Your task to perform on an android device: Open the calendar and show me this week's events? Image 0: 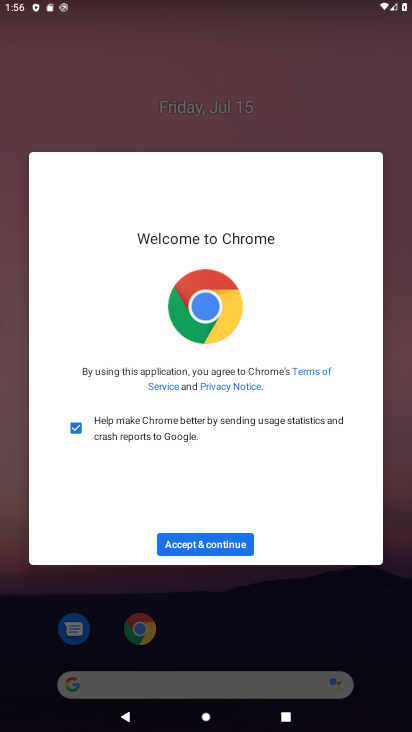
Step 0: click (201, 549)
Your task to perform on an android device: Open the calendar and show me this week's events? Image 1: 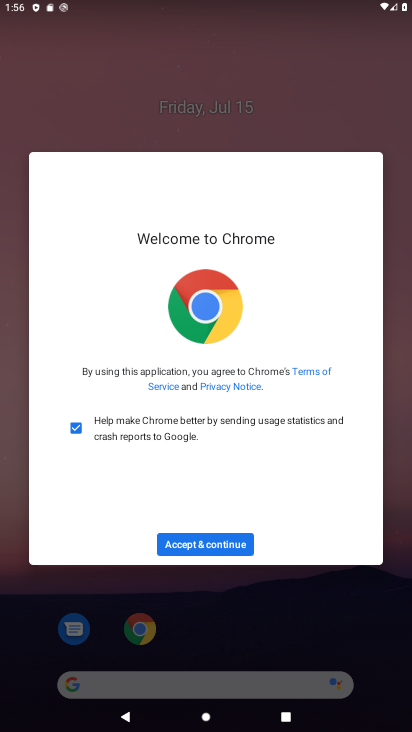
Step 1: click (202, 549)
Your task to perform on an android device: Open the calendar and show me this week's events? Image 2: 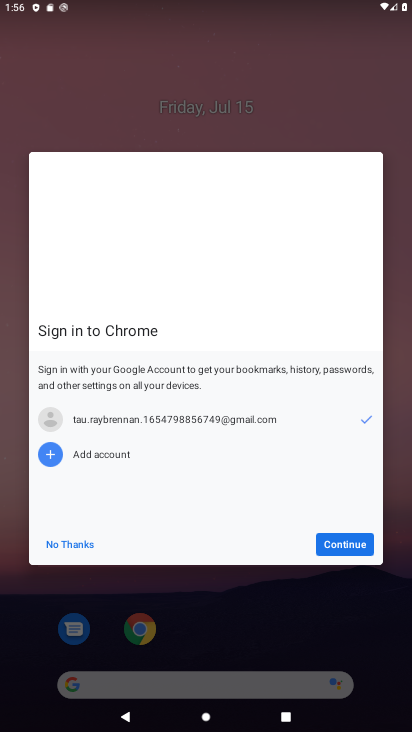
Step 2: click (333, 554)
Your task to perform on an android device: Open the calendar and show me this week's events? Image 3: 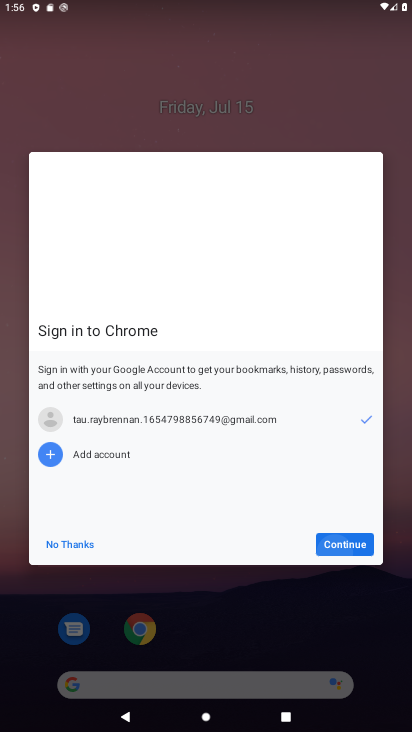
Step 3: click (333, 554)
Your task to perform on an android device: Open the calendar and show me this week's events? Image 4: 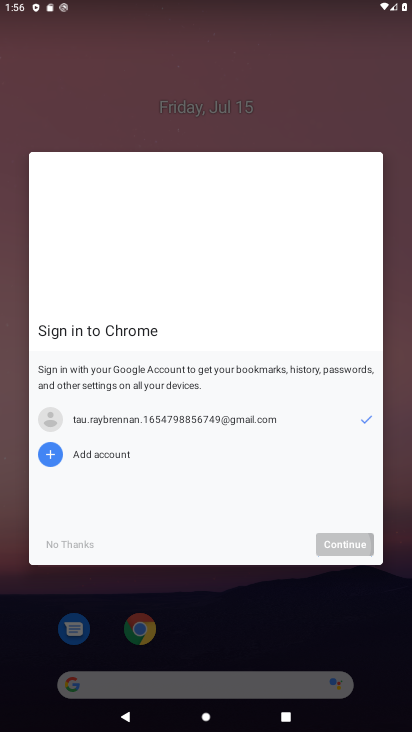
Step 4: click (334, 554)
Your task to perform on an android device: Open the calendar and show me this week's events? Image 5: 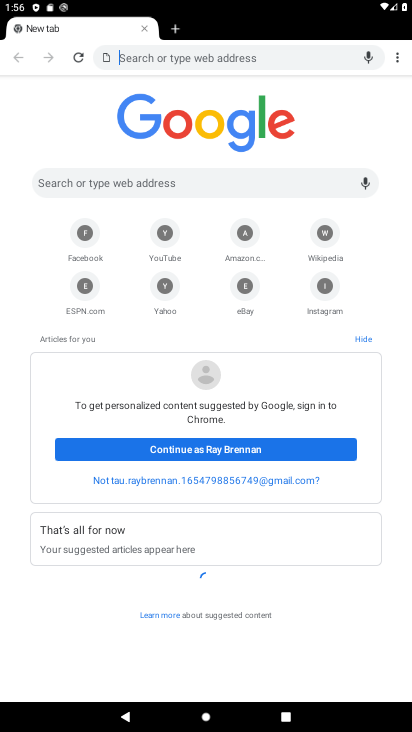
Step 5: press back button
Your task to perform on an android device: Open the calendar and show me this week's events? Image 6: 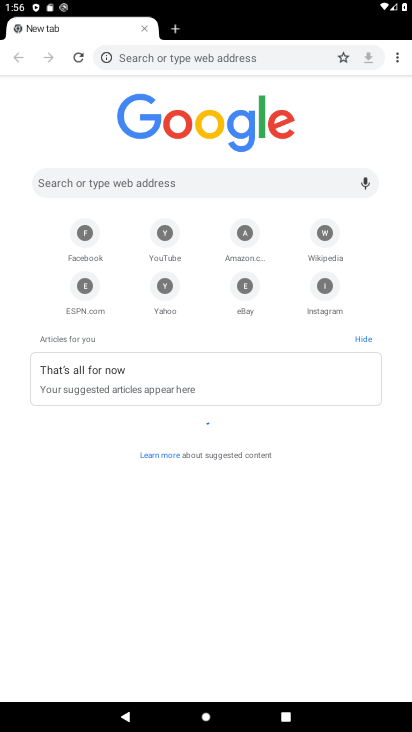
Step 6: press back button
Your task to perform on an android device: Open the calendar and show me this week's events? Image 7: 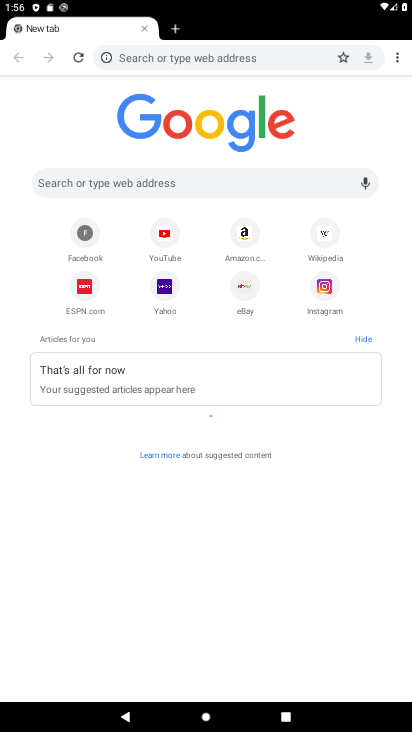
Step 7: press home button
Your task to perform on an android device: Open the calendar and show me this week's events? Image 8: 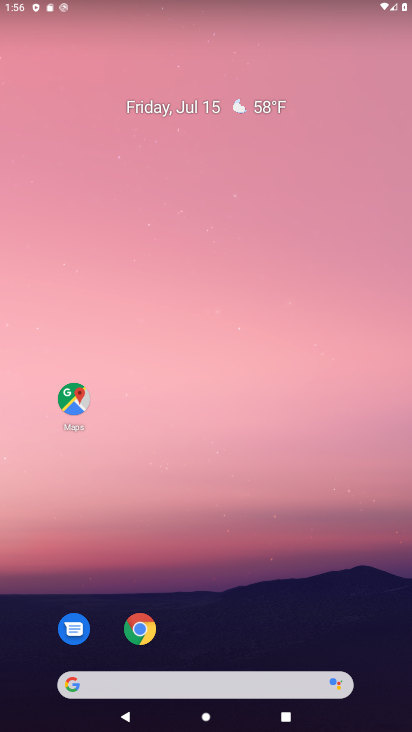
Step 8: drag from (79, 223) to (35, 35)
Your task to perform on an android device: Open the calendar and show me this week's events? Image 9: 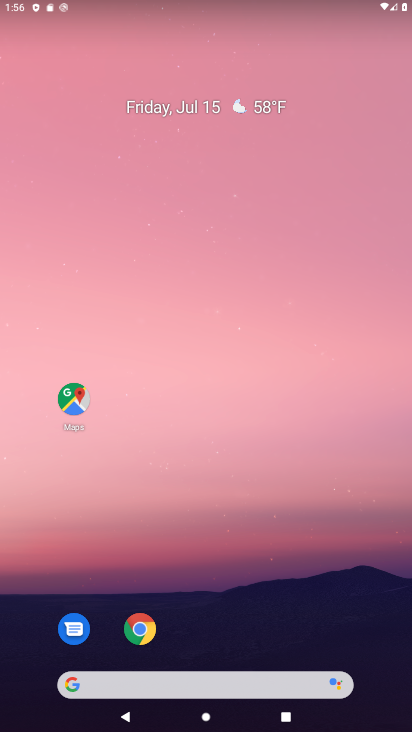
Step 9: click (99, 29)
Your task to perform on an android device: Open the calendar and show me this week's events? Image 10: 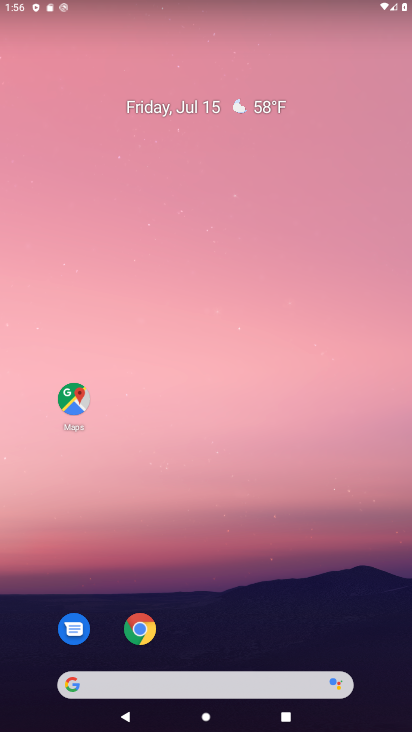
Step 10: drag from (207, 498) to (143, 33)
Your task to perform on an android device: Open the calendar and show me this week's events? Image 11: 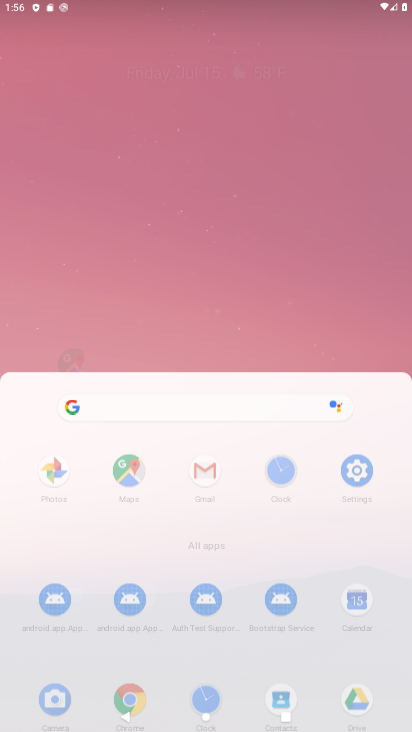
Step 11: drag from (190, 518) to (176, 129)
Your task to perform on an android device: Open the calendar and show me this week's events? Image 12: 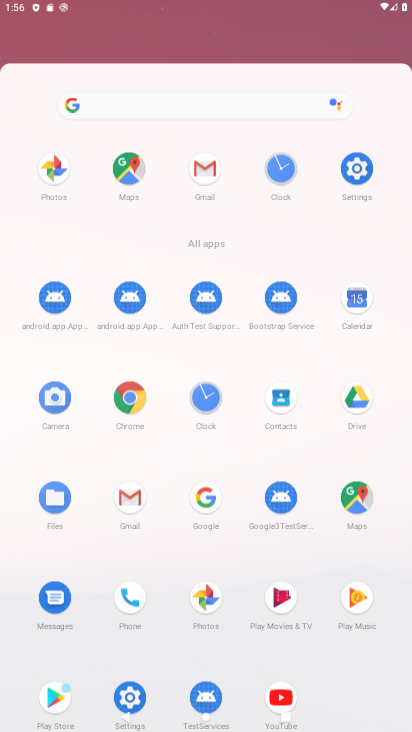
Step 12: drag from (175, 545) to (145, 106)
Your task to perform on an android device: Open the calendar and show me this week's events? Image 13: 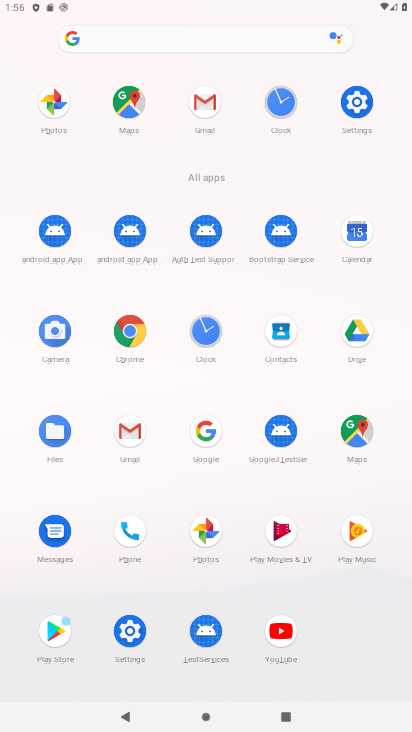
Step 13: click (356, 229)
Your task to perform on an android device: Open the calendar and show me this week's events? Image 14: 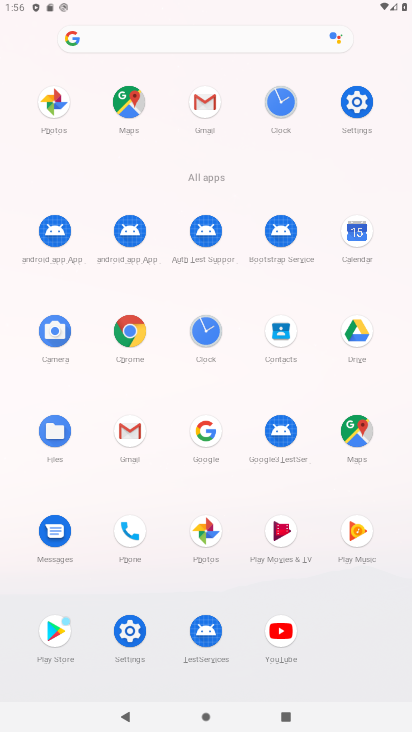
Step 14: click (362, 229)
Your task to perform on an android device: Open the calendar and show me this week's events? Image 15: 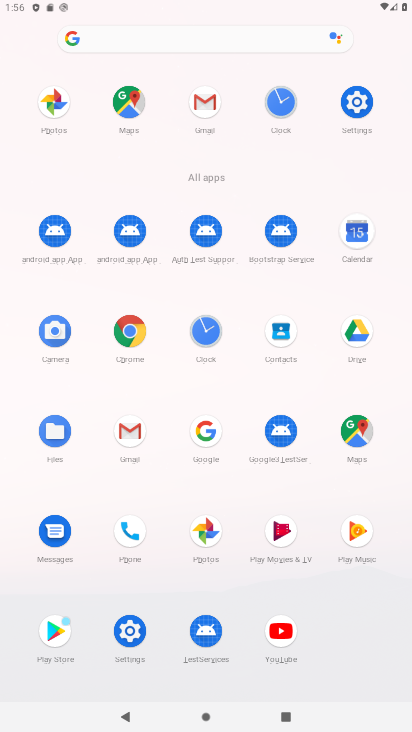
Step 15: click (362, 229)
Your task to perform on an android device: Open the calendar and show me this week's events? Image 16: 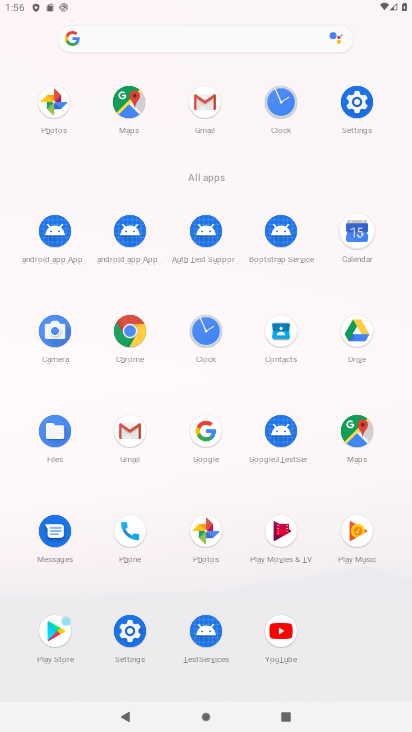
Step 16: click (363, 232)
Your task to perform on an android device: Open the calendar and show me this week's events? Image 17: 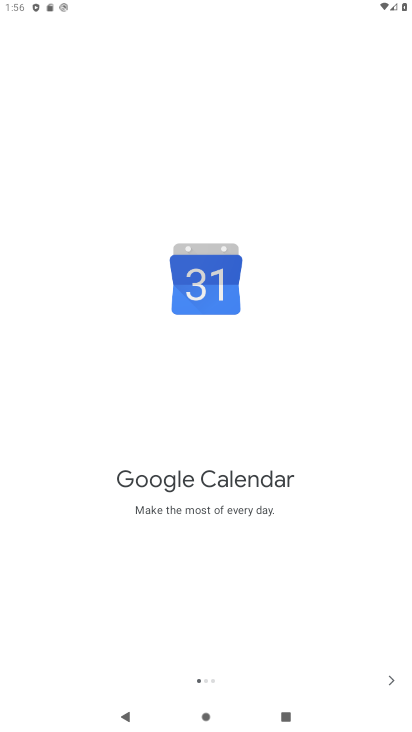
Step 17: click (392, 678)
Your task to perform on an android device: Open the calendar and show me this week's events? Image 18: 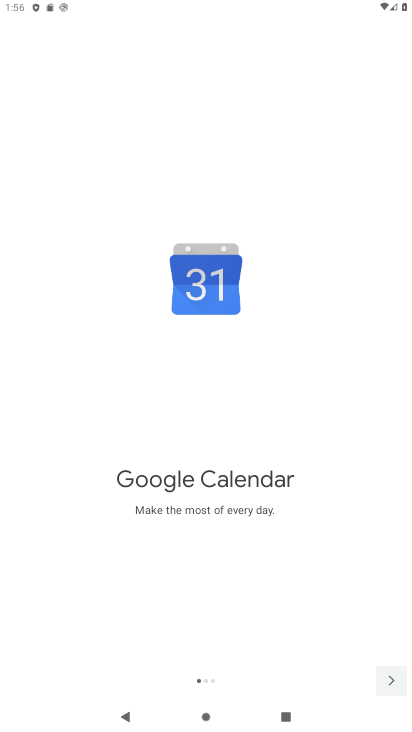
Step 18: click (381, 679)
Your task to perform on an android device: Open the calendar and show me this week's events? Image 19: 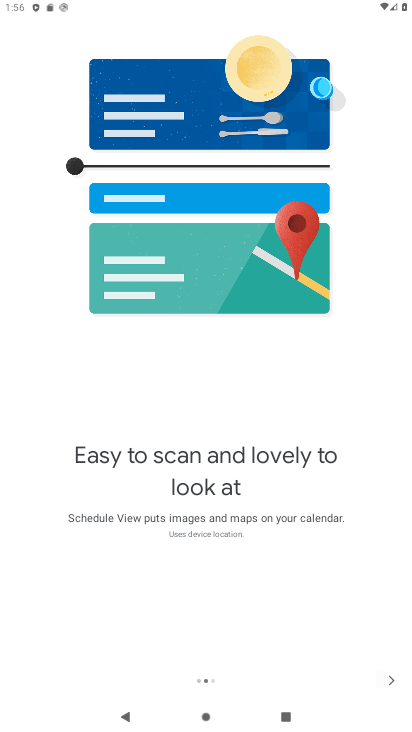
Step 19: click (380, 680)
Your task to perform on an android device: Open the calendar and show me this week's events? Image 20: 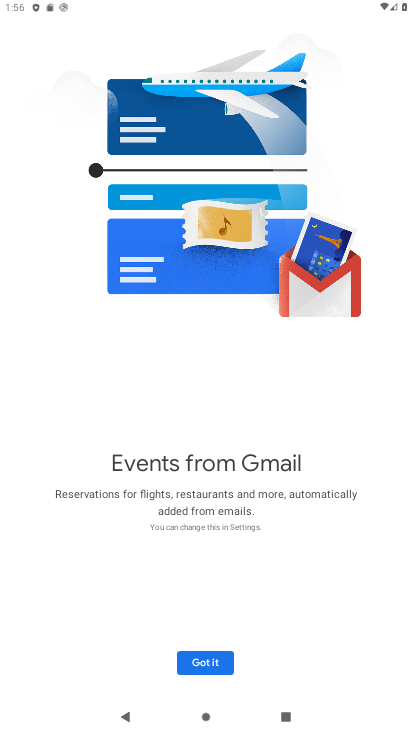
Step 20: click (182, 665)
Your task to perform on an android device: Open the calendar and show me this week's events? Image 21: 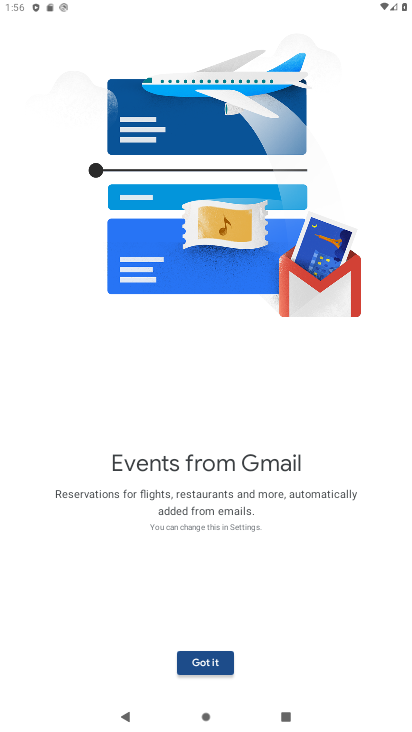
Step 21: click (210, 673)
Your task to perform on an android device: Open the calendar and show me this week's events? Image 22: 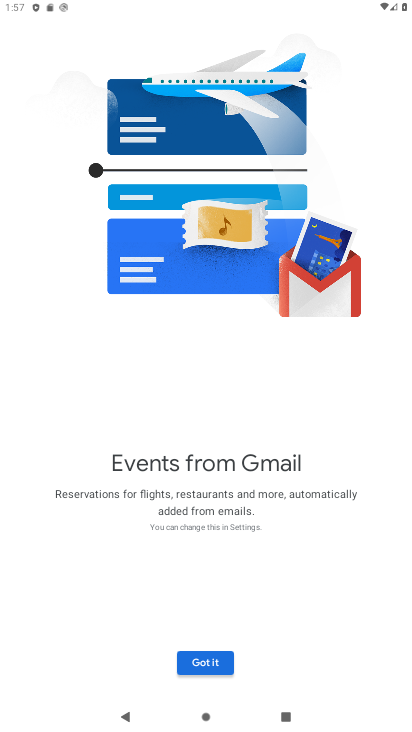
Step 22: click (214, 673)
Your task to perform on an android device: Open the calendar and show me this week's events? Image 23: 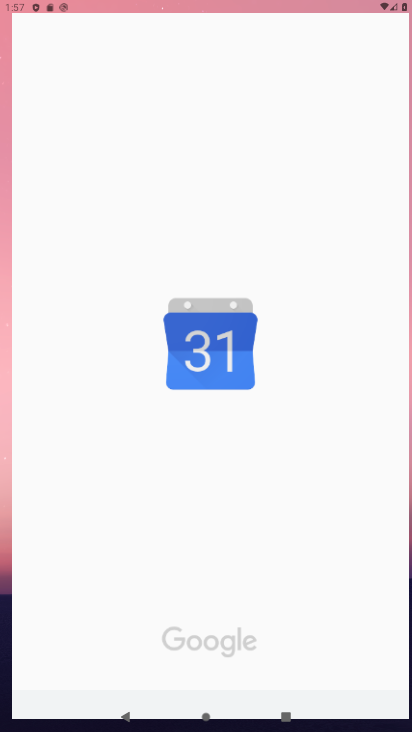
Step 23: click (217, 679)
Your task to perform on an android device: Open the calendar and show me this week's events? Image 24: 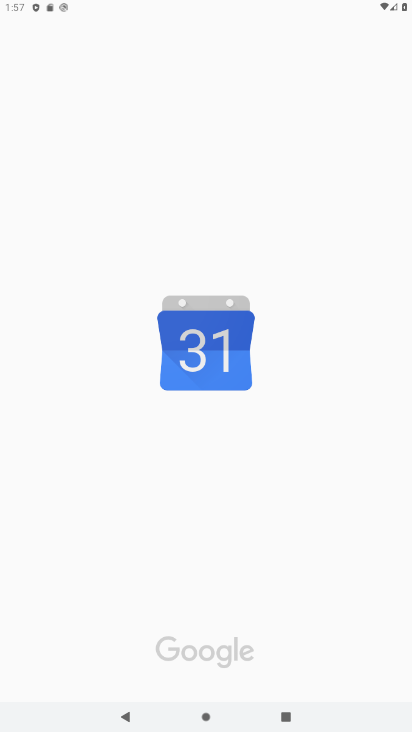
Step 24: click (216, 680)
Your task to perform on an android device: Open the calendar and show me this week's events? Image 25: 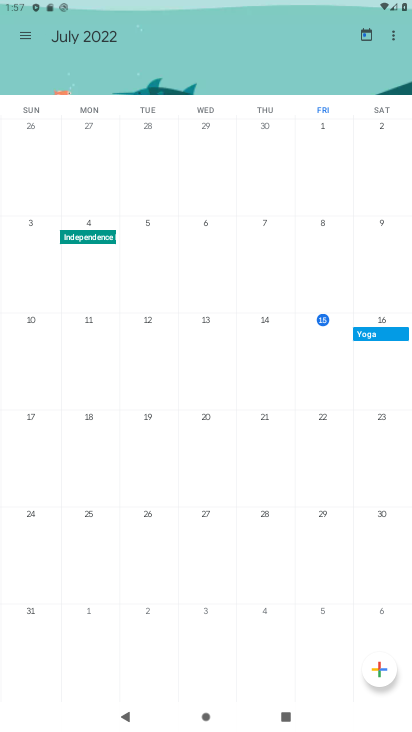
Step 25: click (376, 315)
Your task to perform on an android device: Open the calendar and show me this week's events? Image 26: 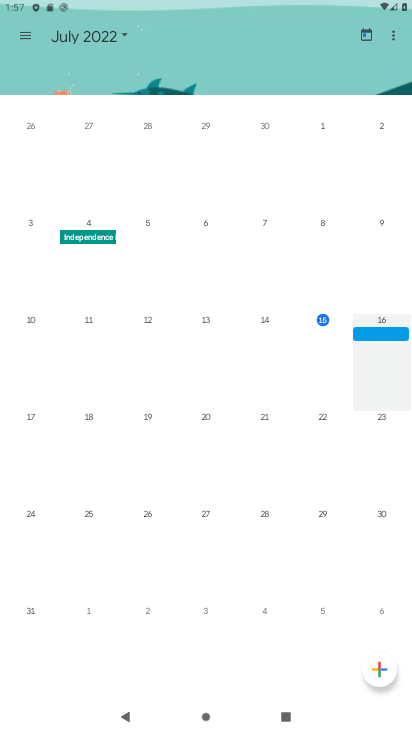
Step 26: click (389, 325)
Your task to perform on an android device: Open the calendar and show me this week's events? Image 27: 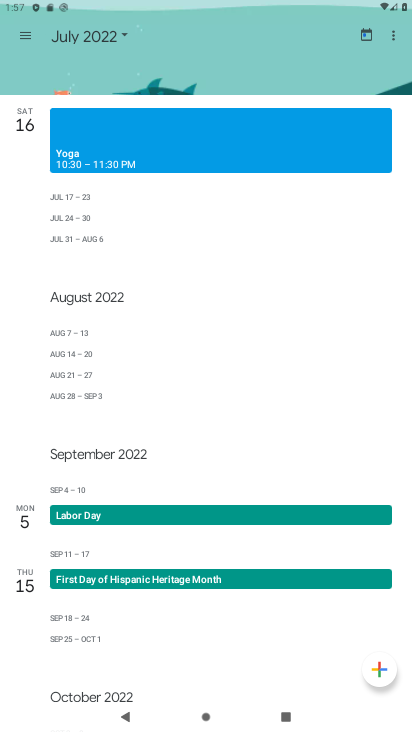
Step 27: click (385, 329)
Your task to perform on an android device: Open the calendar and show me this week's events? Image 28: 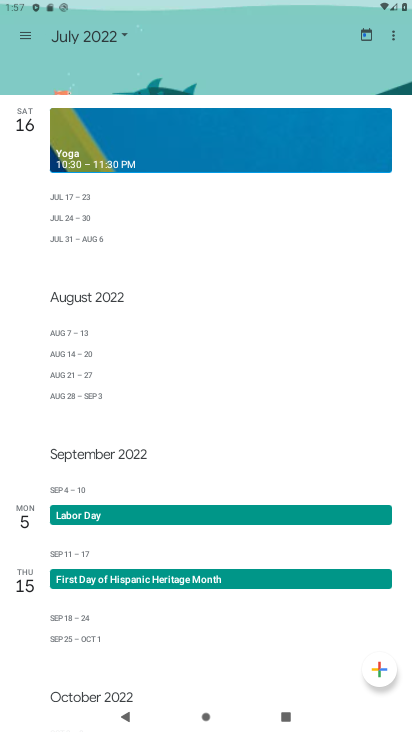
Step 28: task complete